Your task to perform on an android device: toggle wifi Image 0: 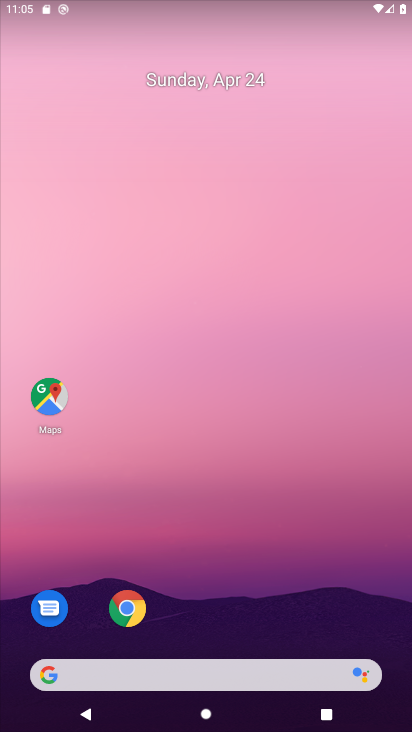
Step 0: drag from (241, 494) to (408, 0)
Your task to perform on an android device: toggle wifi Image 1: 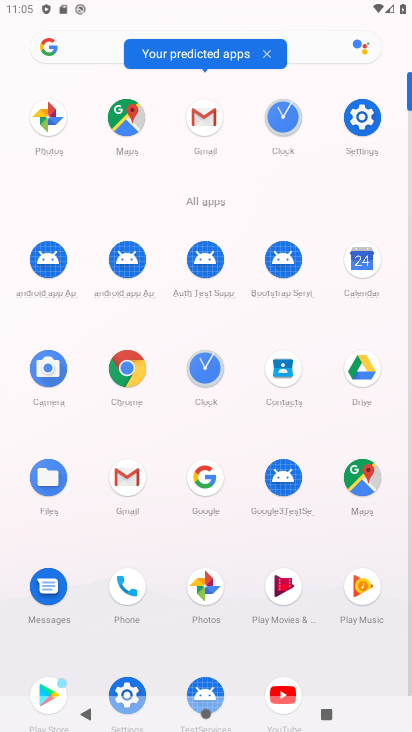
Step 1: click (374, 114)
Your task to perform on an android device: toggle wifi Image 2: 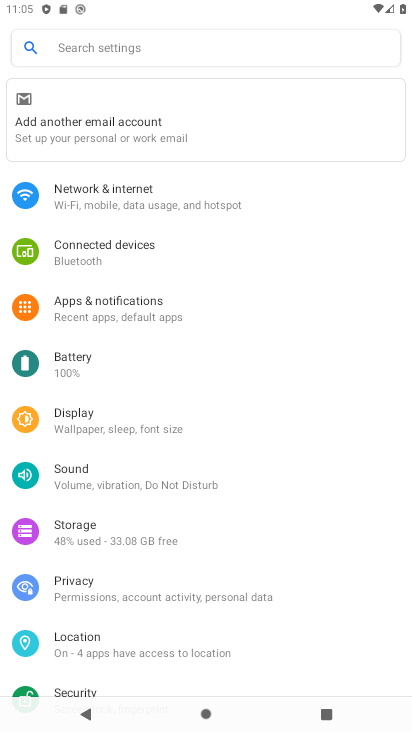
Step 2: click (124, 196)
Your task to perform on an android device: toggle wifi Image 3: 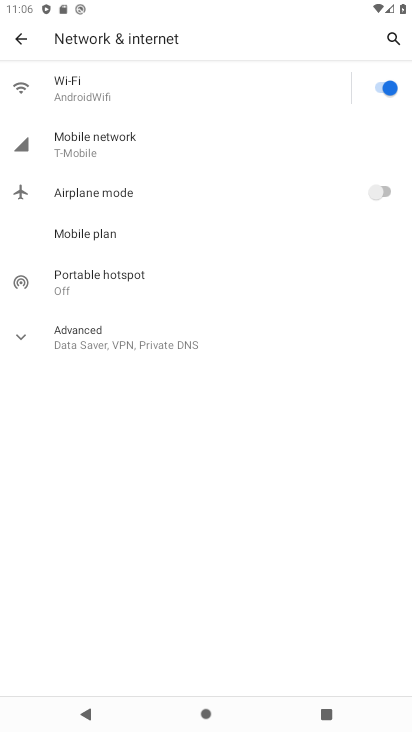
Step 3: click (377, 78)
Your task to perform on an android device: toggle wifi Image 4: 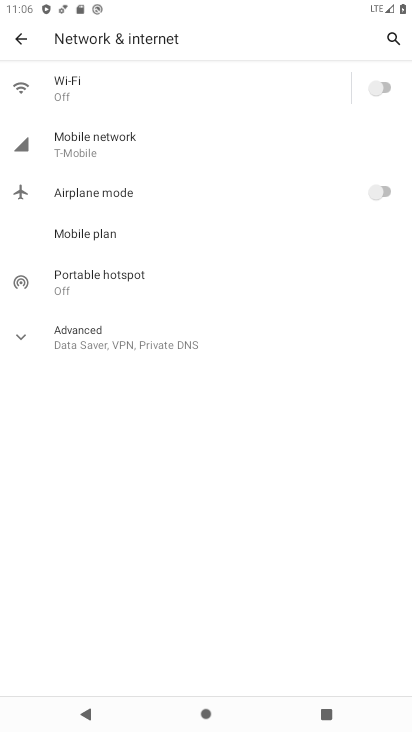
Step 4: task complete